Your task to perform on an android device: Toggle the flashlight Image 0: 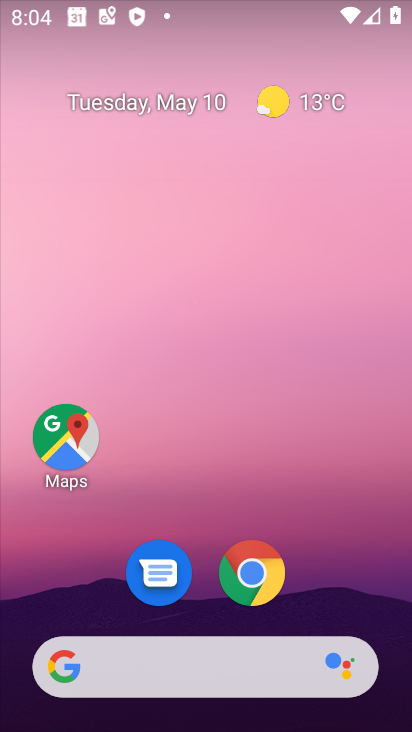
Step 0: drag from (185, 13) to (200, 635)
Your task to perform on an android device: Toggle the flashlight Image 1: 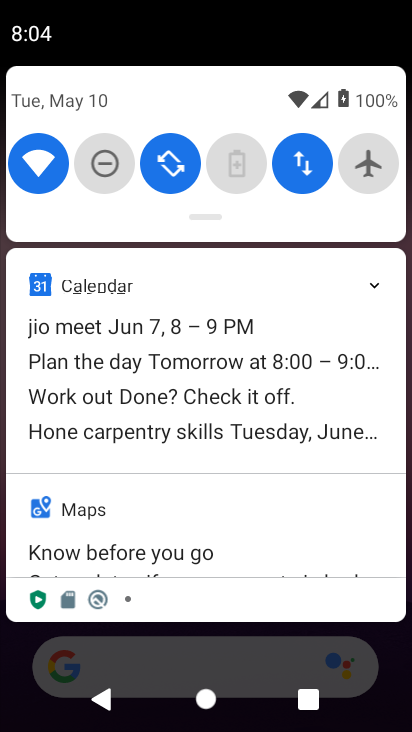
Step 1: task complete